Your task to perform on an android device: set the stopwatch Image 0: 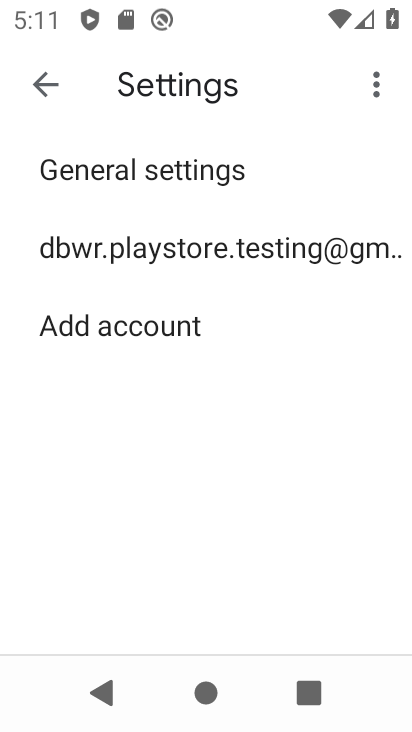
Step 0: press home button
Your task to perform on an android device: set the stopwatch Image 1: 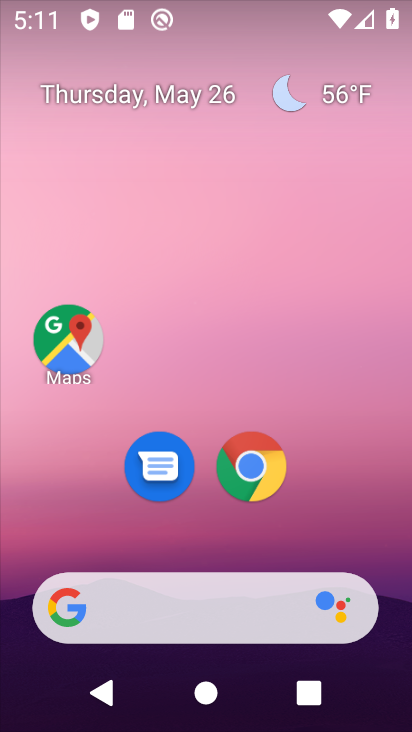
Step 1: drag from (340, 506) to (356, 85)
Your task to perform on an android device: set the stopwatch Image 2: 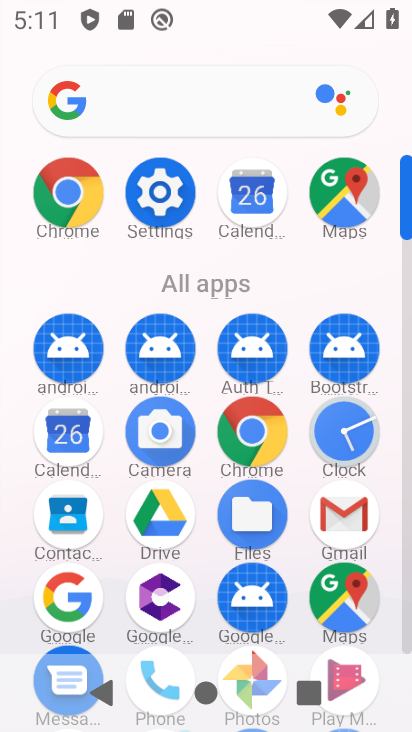
Step 2: click (326, 431)
Your task to perform on an android device: set the stopwatch Image 3: 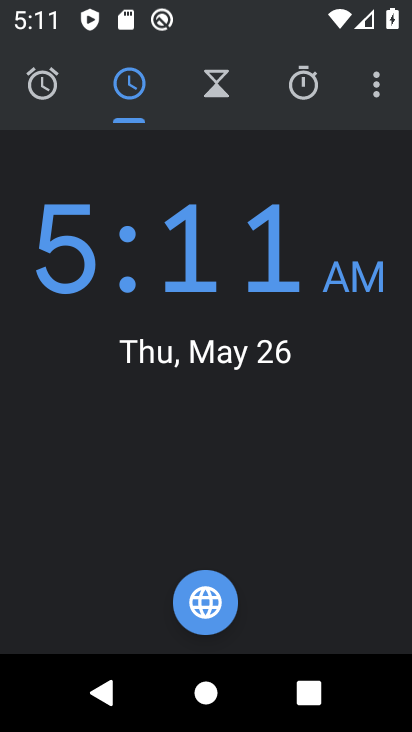
Step 3: click (310, 84)
Your task to perform on an android device: set the stopwatch Image 4: 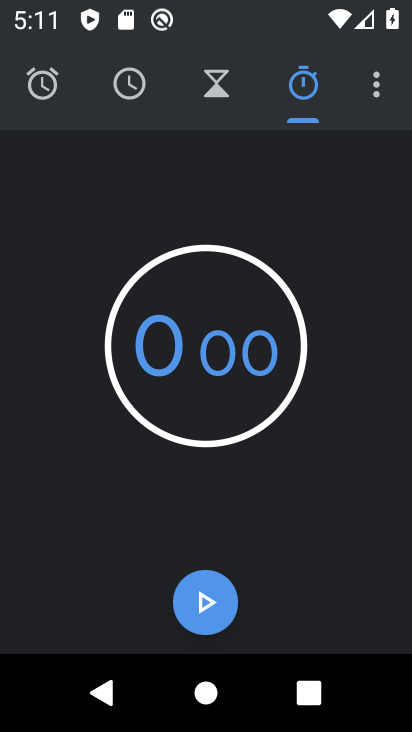
Step 4: click (214, 601)
Your task to perform on an android device: set the stopwatch Image 5: 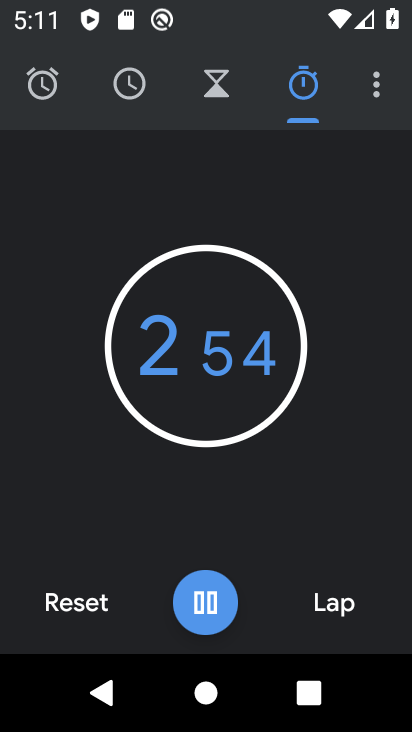
Step 5: task complete